Your task to perform on an android device: Go to settings Image 0: 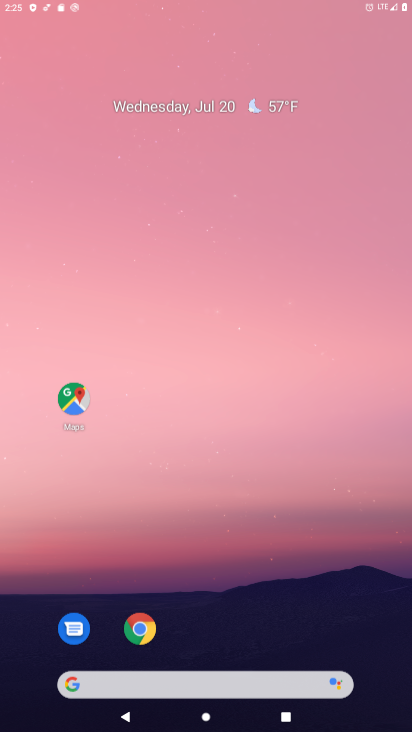
Step 0: click (139, 628)
Your task to perform on an android device: Go to settings Image 1: 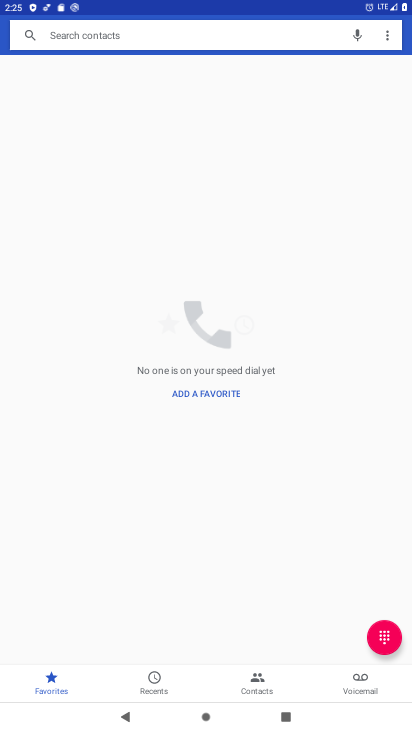
Step 1: press home button
Your task to perform on an android device: Go to settings Image 2: 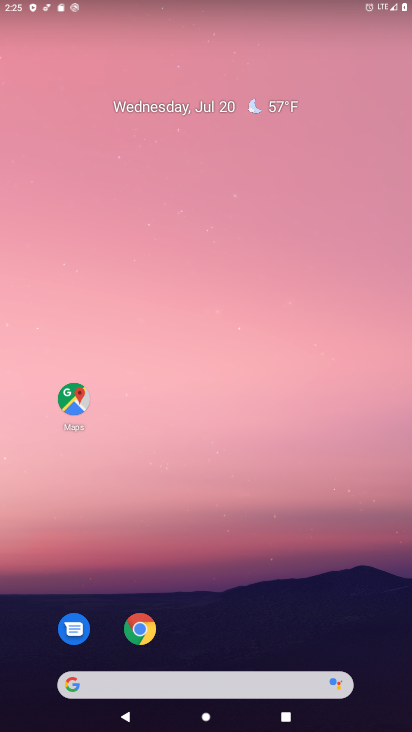
Step 2: drag from (336, 649) to (304, 99)
Your task to perform on an android device: Go to settings Image 3: 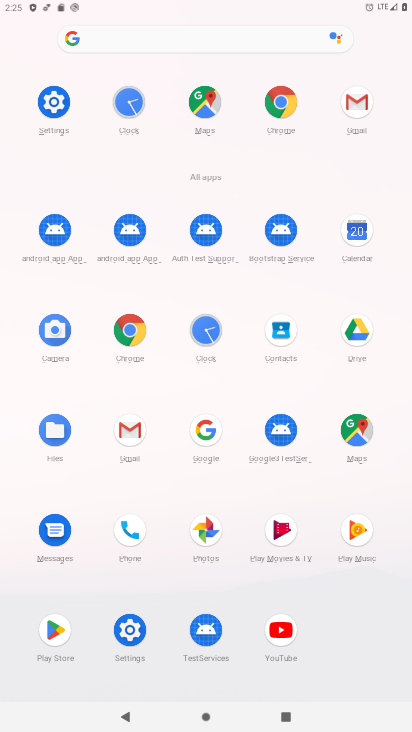
Step 3: click (128, 631)
Your task to perform on an android device: Go to settings Image 4: 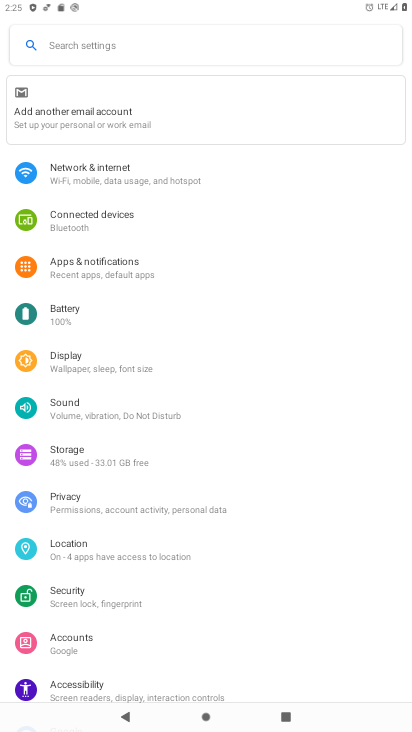
Step 4: task complete